Your task to perform on an android device: Turn on the flashlight Image 0: 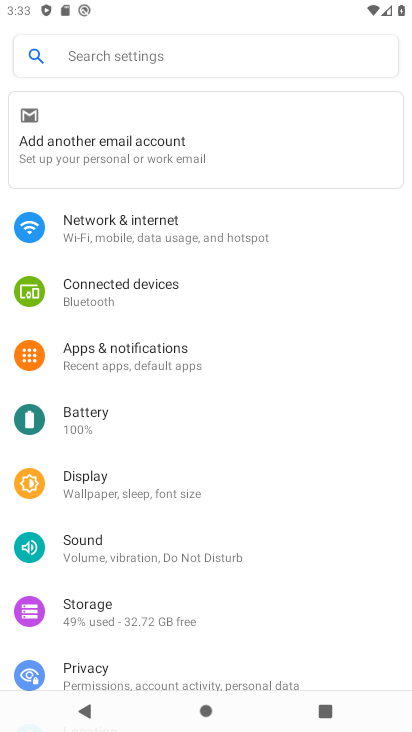
Step 0: press home button
Your task to perform on an android device: Turn on the flashlight Image 1: 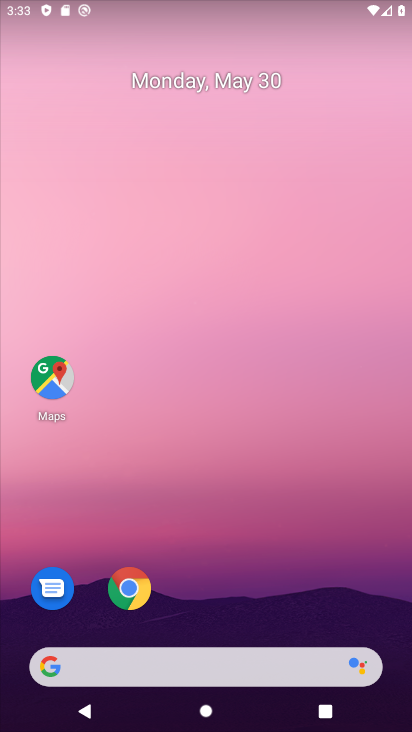
Step 1: drag from (244, 33) to (223, 320)
Your task to perform on an android device: Turn on the flashlight Image 2: 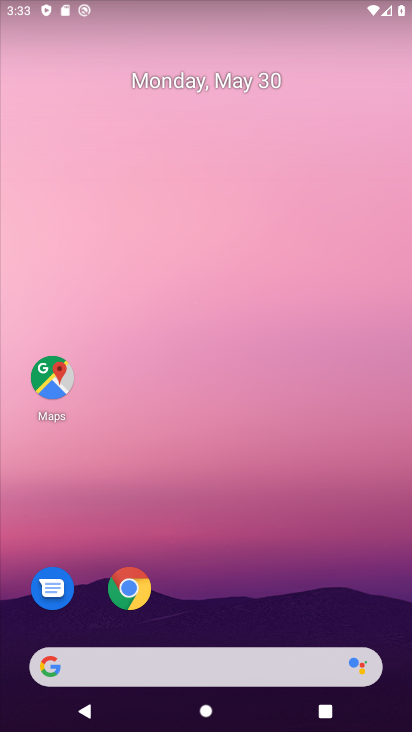
Step 2: drag from (226, 22) to (236, 463)
Your task to perform on an android device: Turn on the flashlight Image 3: 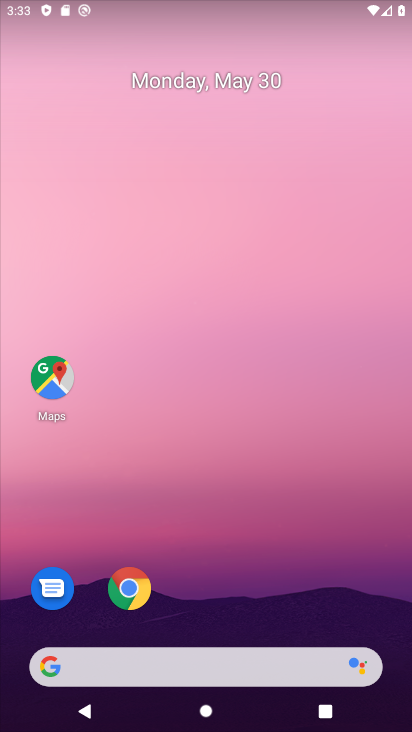
Step 3: drag from (250, 47) to (247, 429)
Your task to perform on an android device: Turn on the flashlight Image 4: 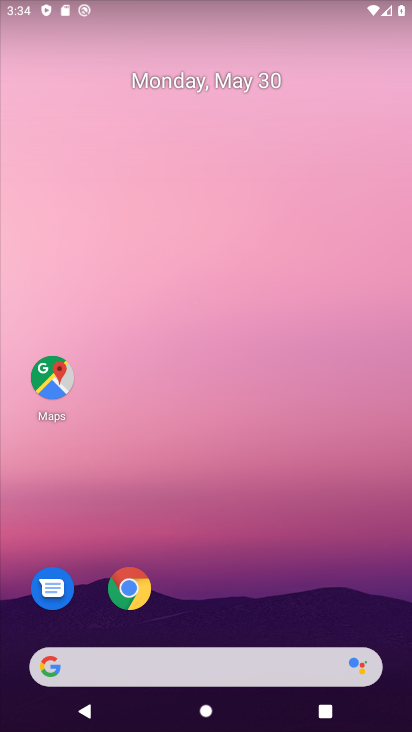
Step 4: drag from (214, 21) to (236, 427)
Your task to perform on an android device: Turn on the flashlight Image 5: 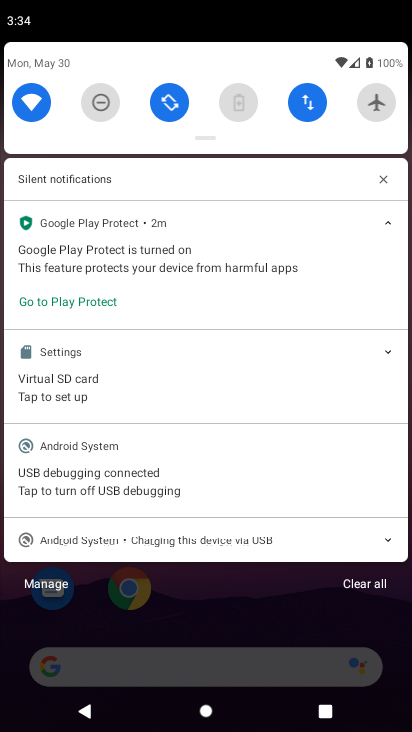
Step 5: drag from (207, 138) to (210, 500)
Your task to perform on an android device: Turn on the flashlight Image 6: 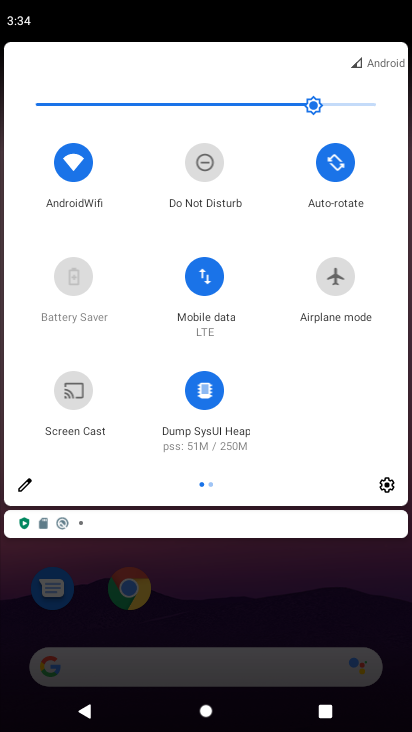
Step 6: click (14, 487)
Your task to perform on an android device: Turn on the flashlight Image 7: 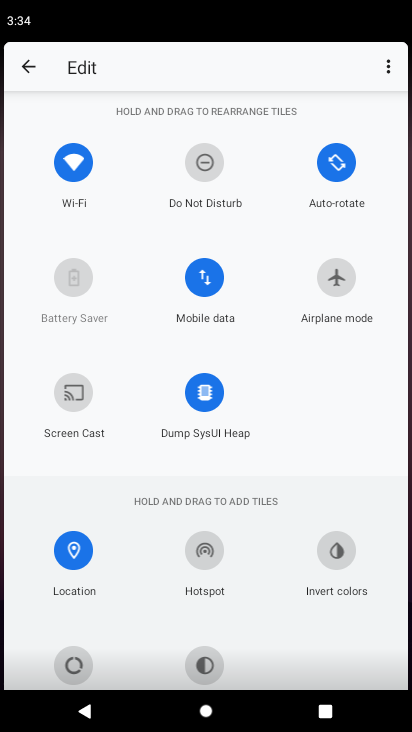
Step 7: task complete